Your task to perform on an android device: open a bookmark in the chrome app Image 0: 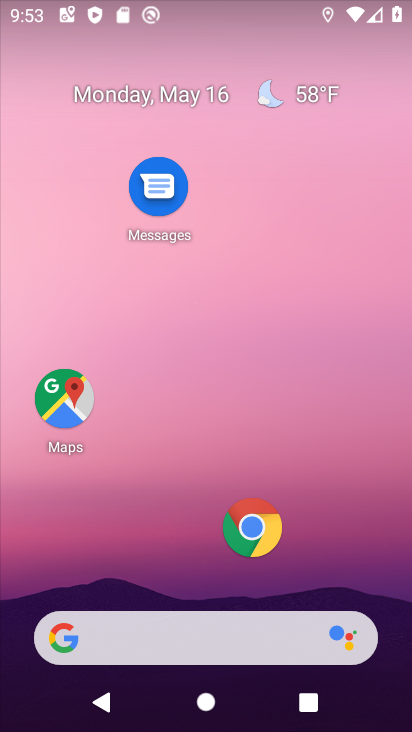
Step 0: click (253, 529)
Your task to perform on an android device: open a bookmark in the chrome app Image 1: 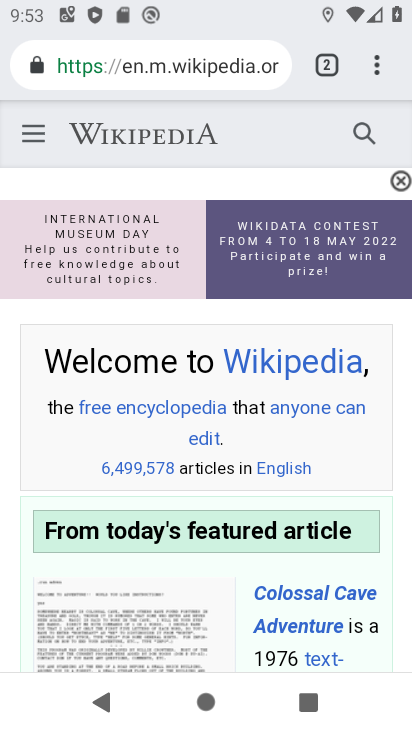
Step 1: click (371, 75)
Your task to perform on an android device: open a bookmark in the chrome app Image 2: 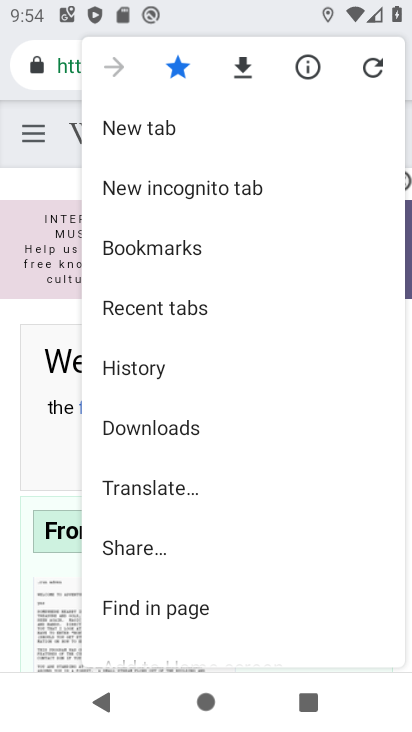
Step 2: click (165, 257)
Your task to perform on an android device: open a bookmark in the chrome app Image 3: 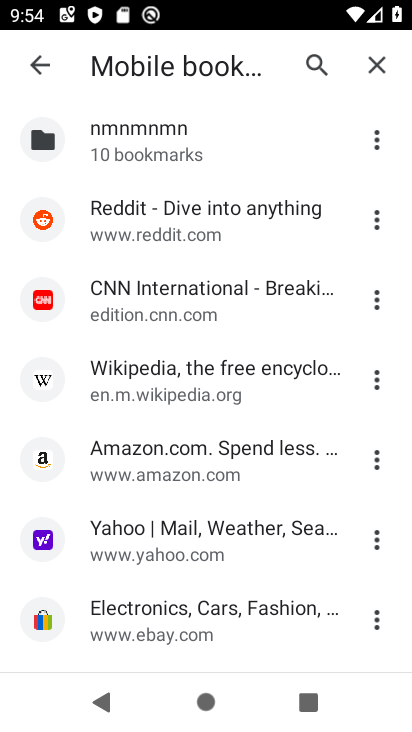
Step 3: click (153, 463)
Your task to perform on an android device: open a bookmark in the chrome app Image 4: 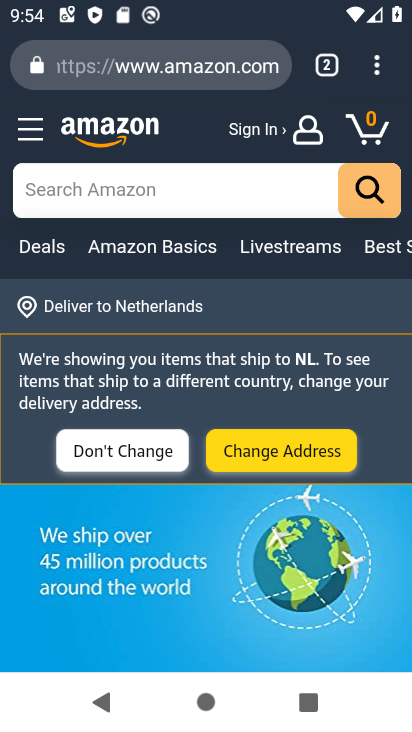
Step 4: task complete